Your task to perform on an android device: toggle show notifications on the lock screen Image 0: 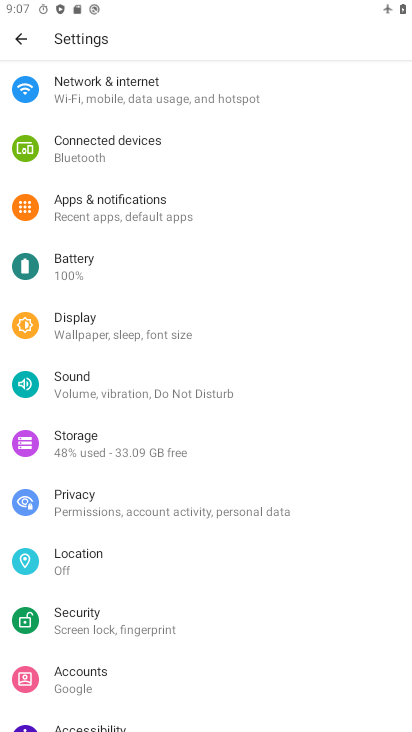
Step 0: click (186, 215)
Your task to perform on an android device: toggle show notifications on the lock screen Image 1: 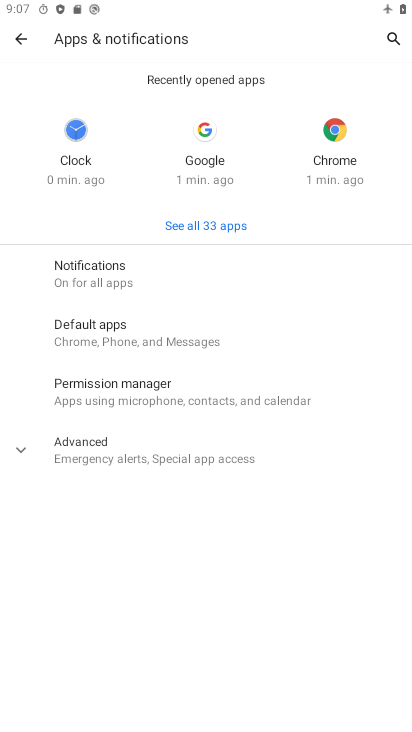
Step 1: click (206, 268)
Your task to perform on an android device: toggle show notifications on the lock screen Image 2: 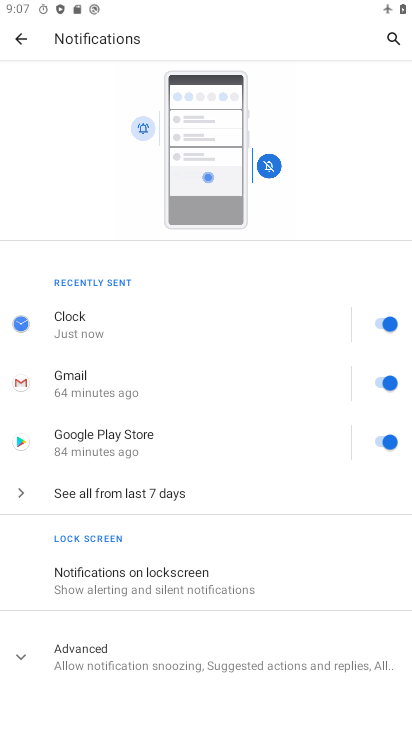
Step 2: click (187, 587)
Your task to perform on an android device: toggle show notifications on the lock screen Image 3: 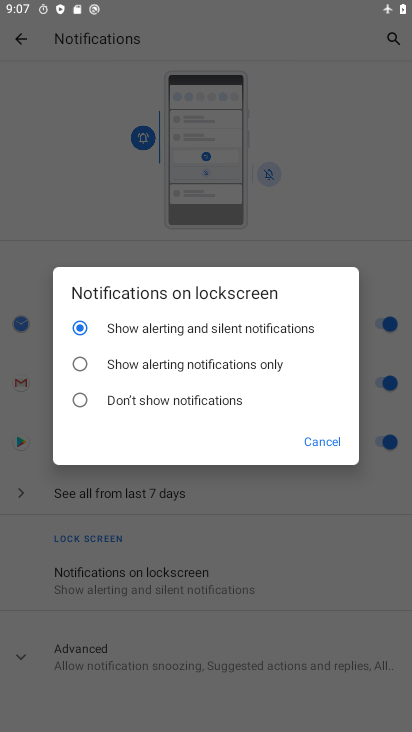
Step 3: click (164, 405)
Your task to perform on an android device: toggle show notifications on the lock screen Image 4: 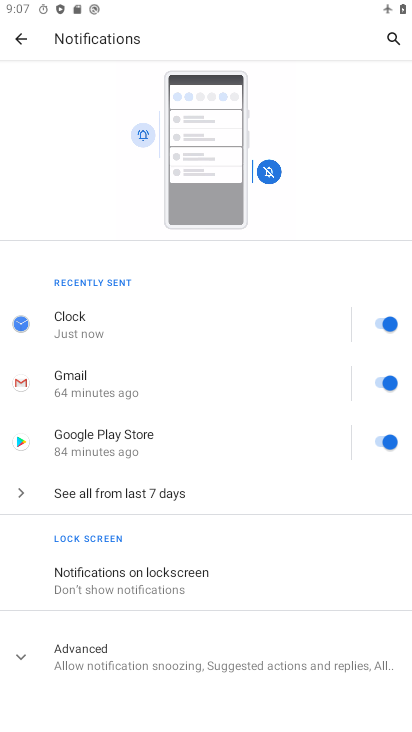
Step 4: task complete